Your task to perform on an android device: turn off smart reply in the gmail app Image 0: 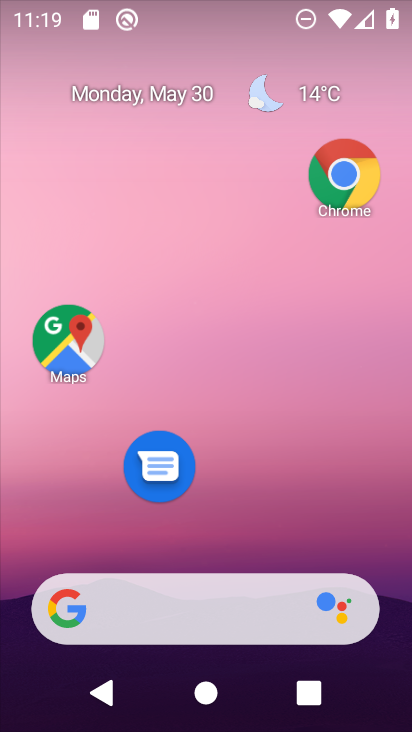
Step 0: drag from (280, 486) to (203, 138)
Your task to perform on an android device: turn off smart reply in the gmail app Image 1: 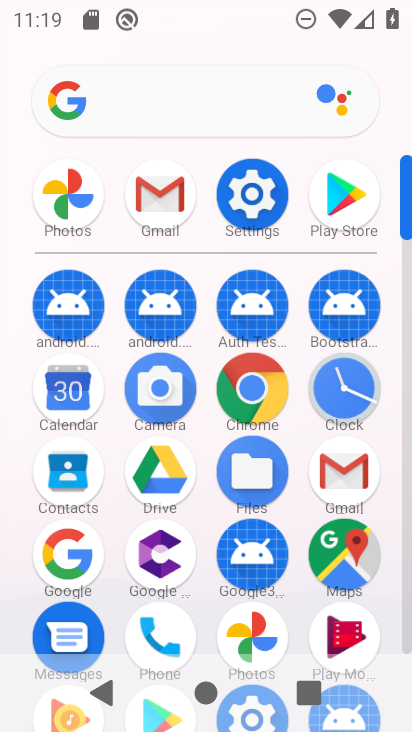
Step 1: click (162, 211)
Your task to perform on an android device: turn off smart reply in the gmail app Image 2: 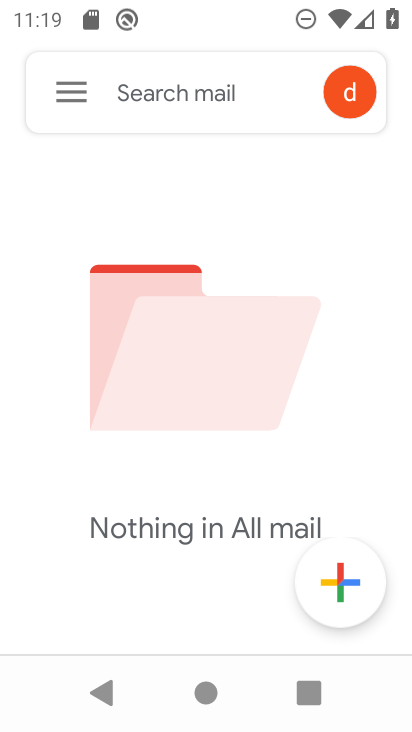
Step 2: click (68, 107)
Your task to perform on an android device: turn off smart reply in the gmail app Image 3: 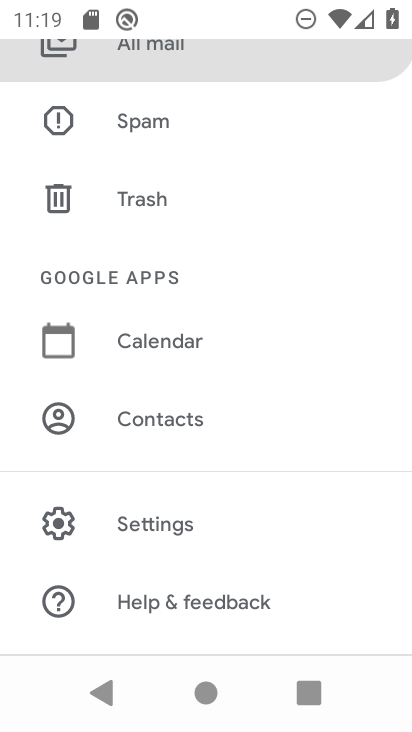
Step 3: click (156, 512)
Your task to perform on an android device: turn off smart reply in the gmail app Image 4: 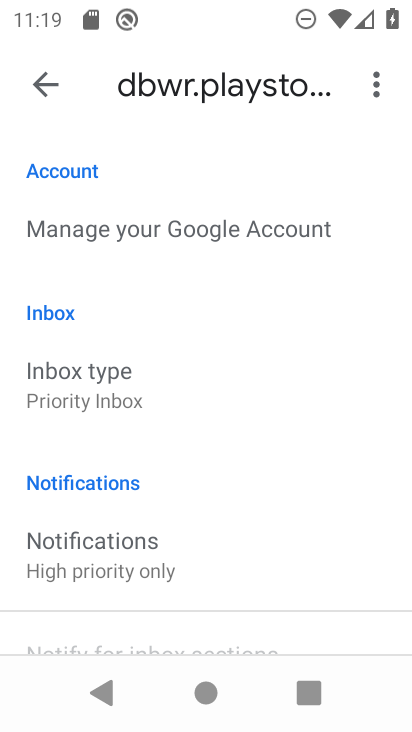
Step 4: drag from (267, 523) to (259, 110)
Your task to perform on an android device: turn off smart reply in the gmail app Image 5: 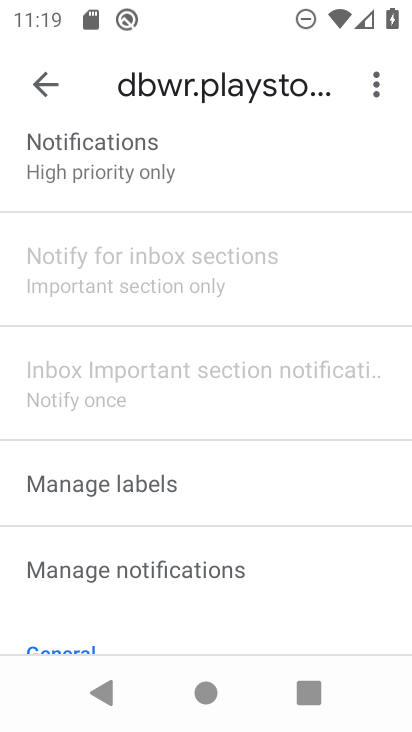
Step 5: drag from (211, 514) to (203, 203)
Your task to perform on an android device: turn off smart reply in the gmail app Image 6: 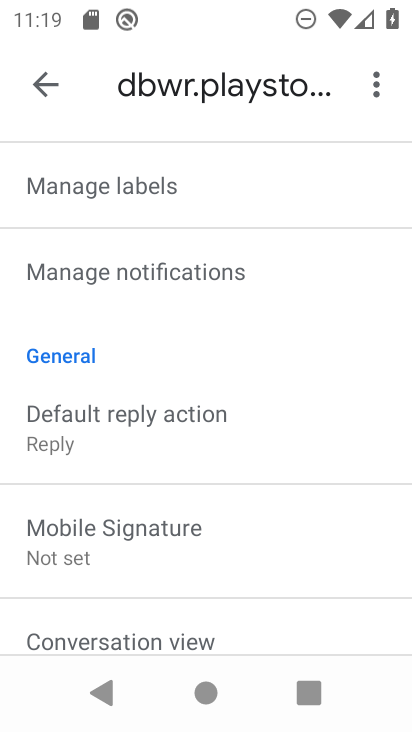
Step 6: drag from (200, 530) to (199, 151)
Your task to perform on an android device: turn off smart reply in the gmail app Image 7: 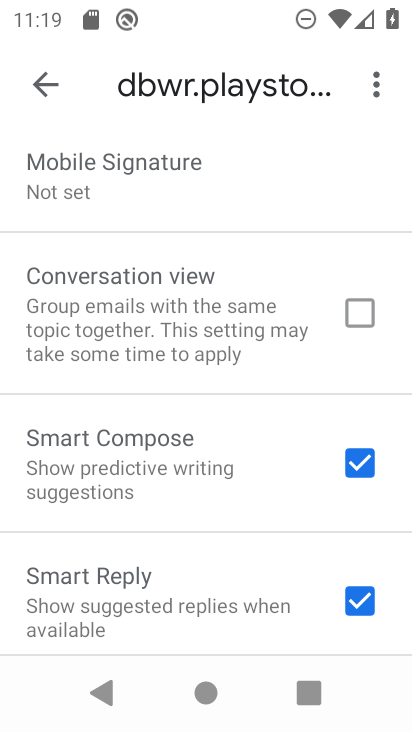
Step 7: click (359, 595)
Your task to perform on an android device: turn off smart reply in the gmail app Image 8: 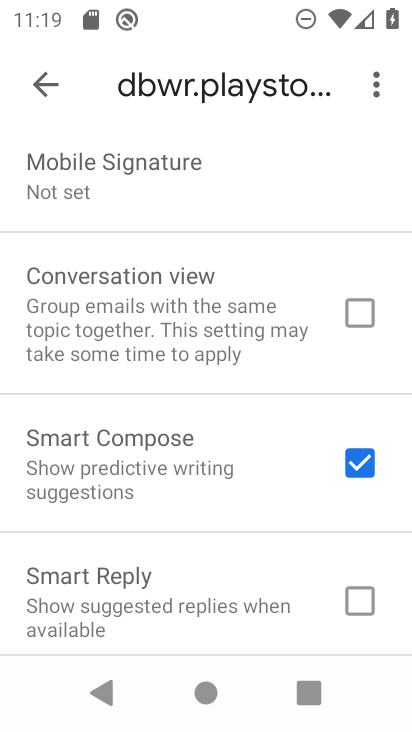
Step 8: task complete